Your task to perform on an android device: Go to location settings Image 0: 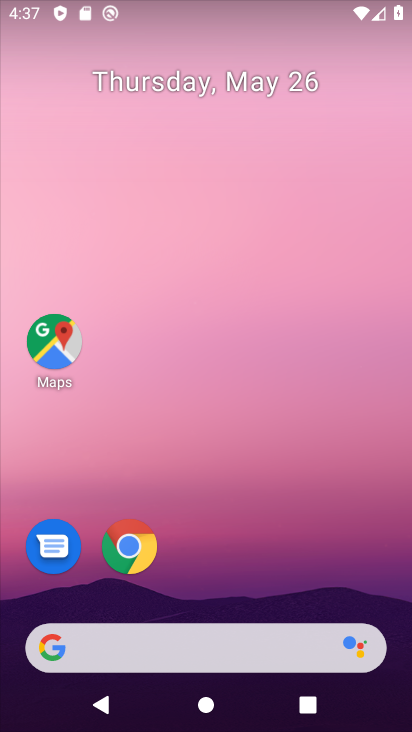
Step 0: drag from (260, 581) to (206, 126)
Your task to perform on an android device: Go to location settings Image 1: 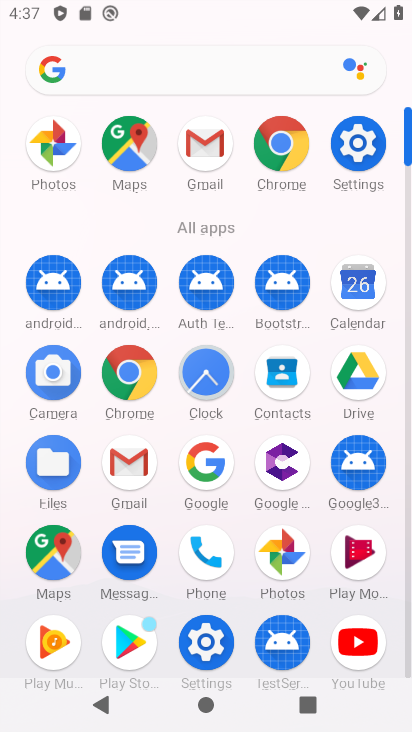
Step 1: click (353, 142)
Your task to perform on an android device: Go to location settings Image 2: 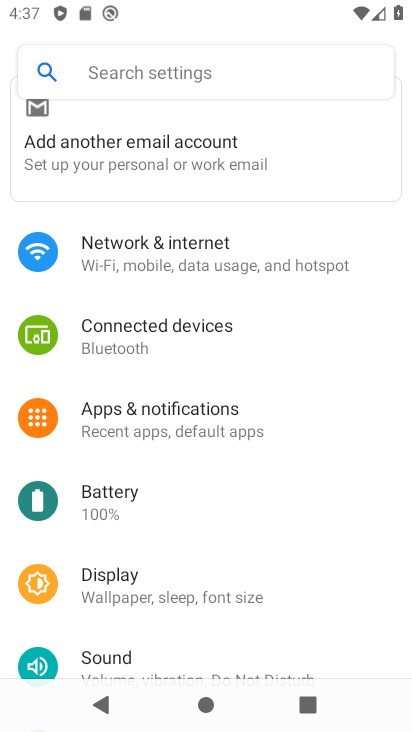
Step 2: drag from (203, 616) to (143, 355)
Your task to perform on an android device: Go to location settings Image 3: 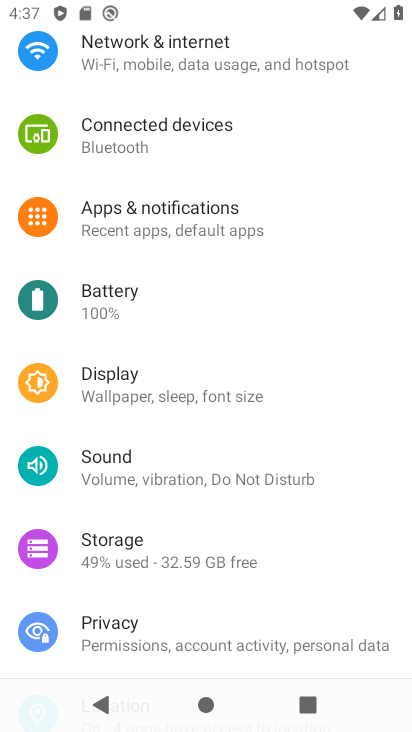
Step 3: drag from (222, 599) to (197, 215)
Your task to perform on an android device: Go to location settings Image 4: 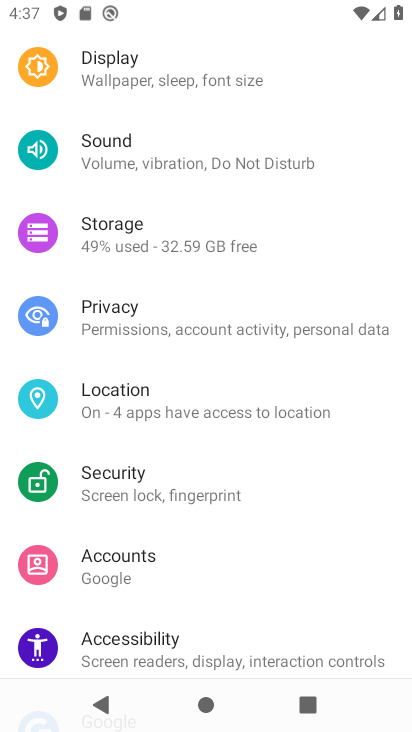
Step 4: click (214, 402)
Your task to perform on an android device: Go to location settings Image 5: 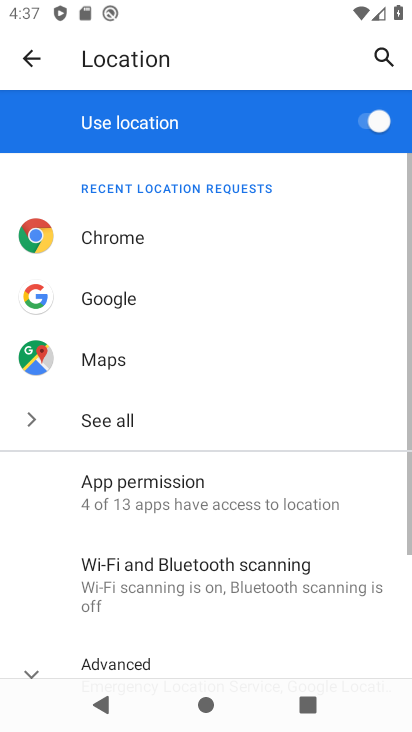
Step 5: task complete